Your task to perform on an android device: Go to calendar. Show me events next week Image 0: 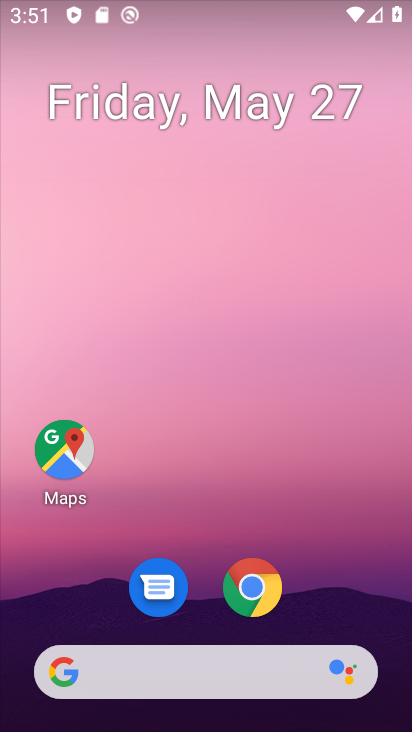
Step 0: drag from (345, 513) to (206, 8)
Your task to perform on an android device: Go to calendar. Show me events next week Image 1: 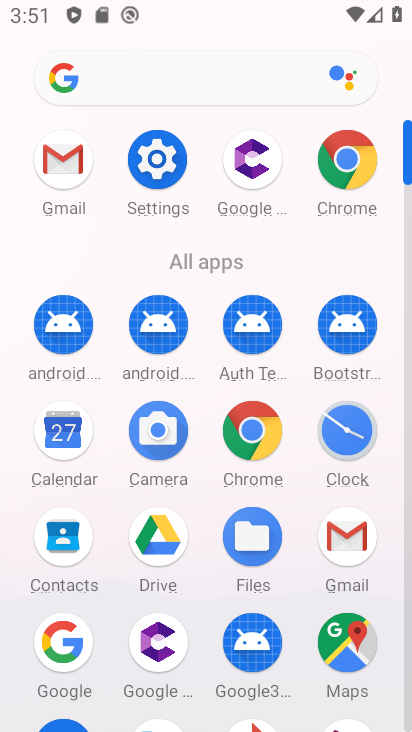
Step 1: drag from (22, 504) to (24, 207)
Your task to perform on an android device: Go to calendar. Show me events next week Image 2: 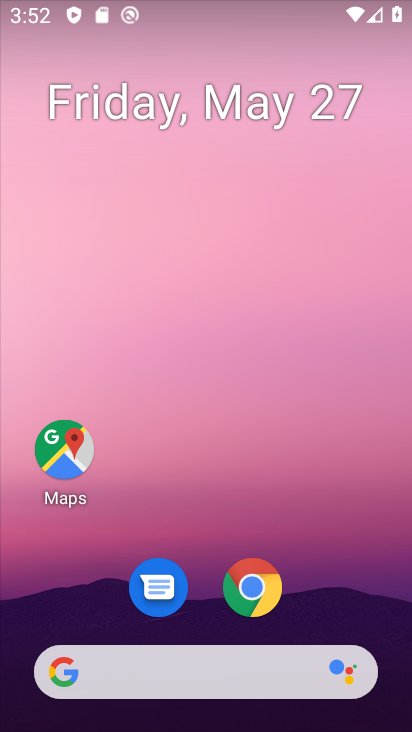
Step 2: drag from (390, 662) to (352, 79)
Your task to perform on an android device: Go to calendar. Show me events next week Image 3: 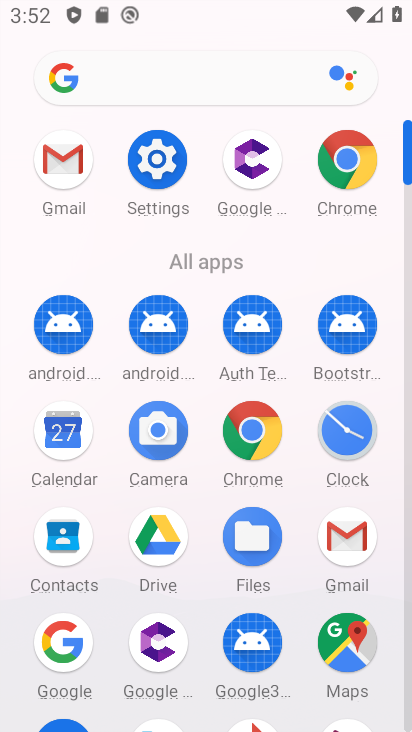
Step 3: drag from (7, 604) to (0, 262)
Your task to perform on an android device: Go to calendar. Show me events next week Image 4: 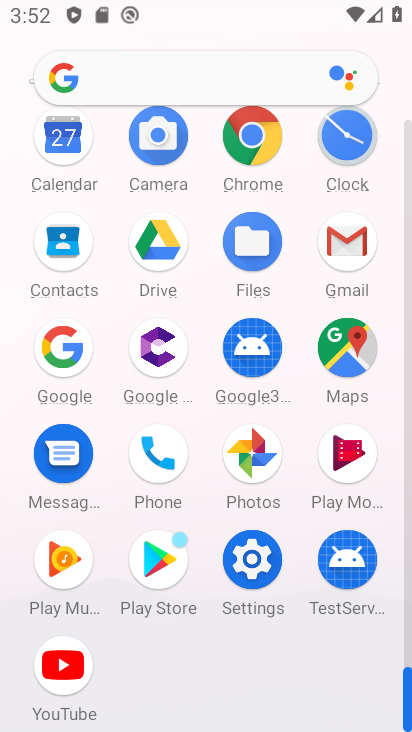
Step 4: click (58, 136)
Your task to perform on an android device: Go to calendar. Show me events next week Image 5: 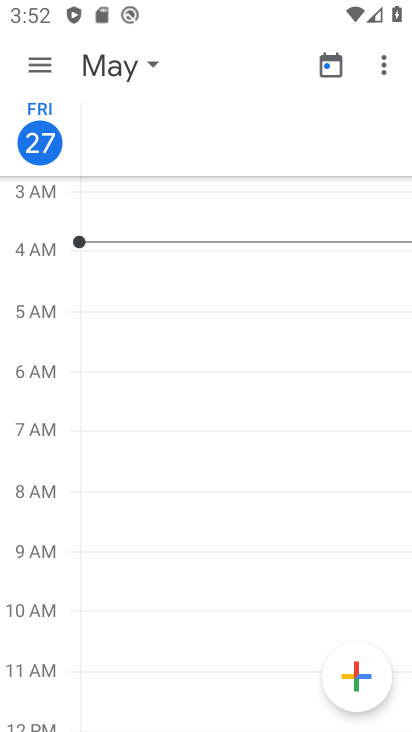
Step 5: click (99, 66)
Your task to perform on an android device: Go to calendar. Show me events next week Image 6: 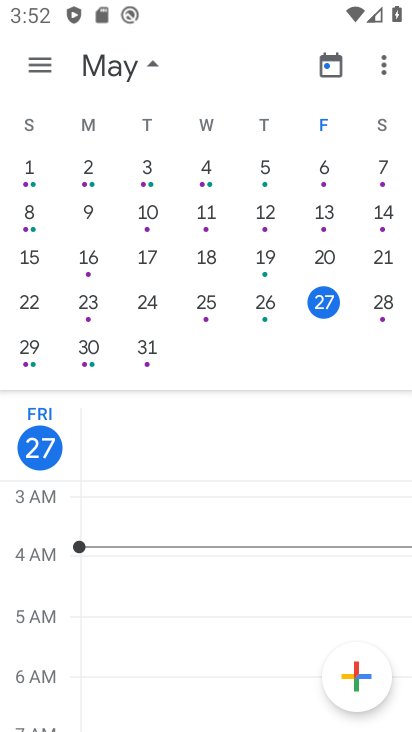
Step 6: click (41, 74)
Your task to perform on an android device: Go to calendar. Show me events next week Image 7: 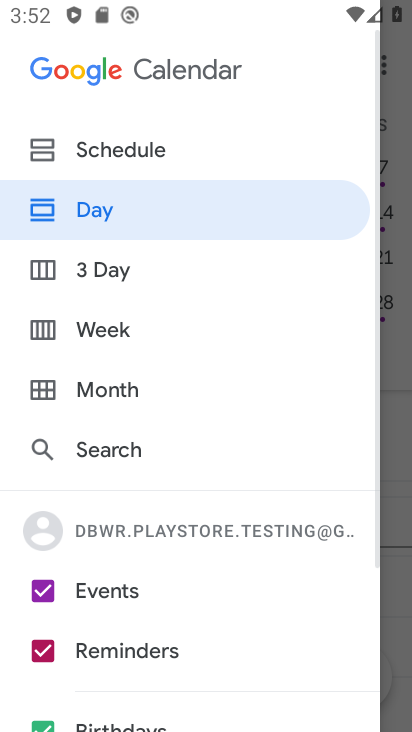
Step 7: click (106, 332)
Your task to perform on an android device: Go to calendar. Show me events next week Image 8: 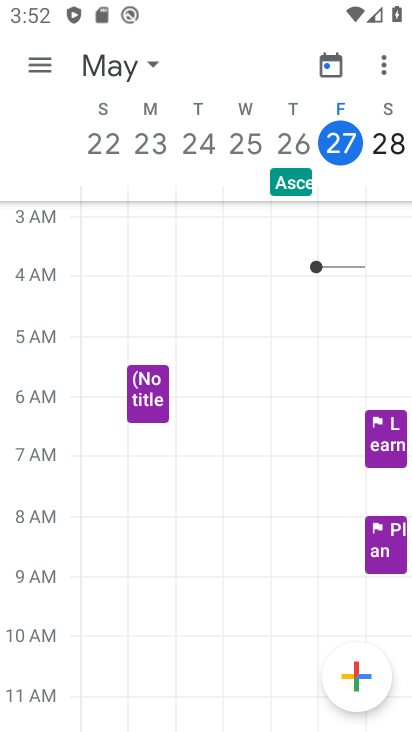
Step 8: task complete